Your task to perform on an android device: toggle airplane mode Image 0: 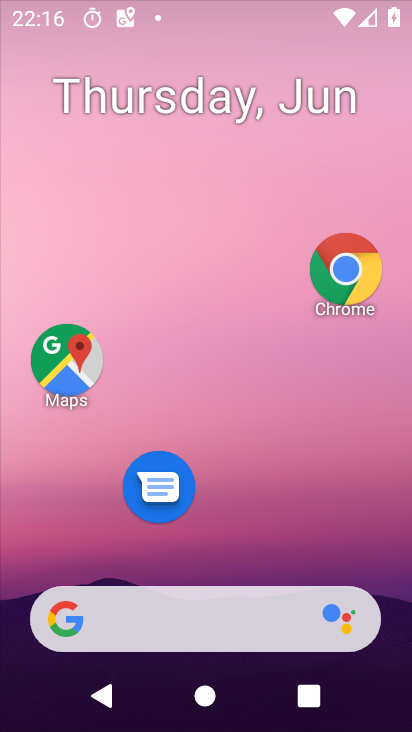
Step 0: drag from (228, 532) to (280, 255)
Your task to perform on an android device: toggle airplane mode Image 1: 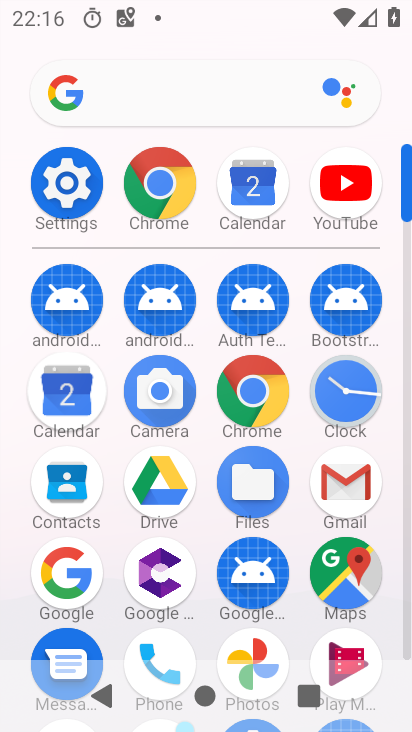
Step 1: click (72, 201)
Your task to perform on an android device: toggle airplane mode Image 2: 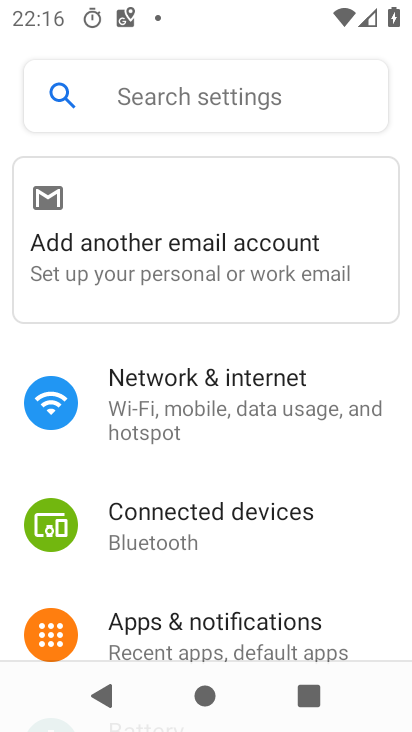
Step 2: click (228, 423)
Your task to perform on an android device: toggle airplane mode Image 3: 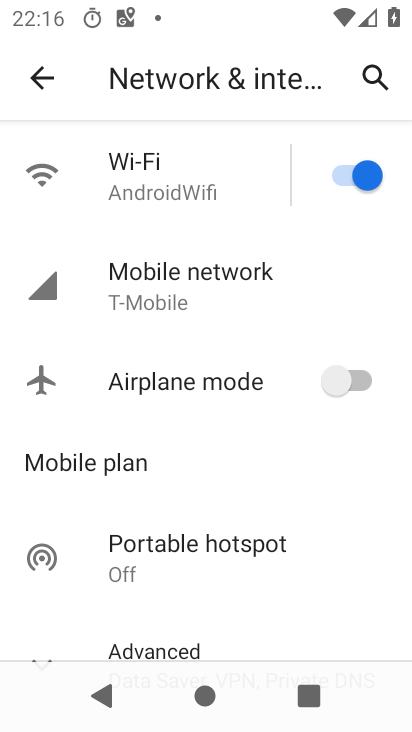
Step 3: click (216, 384)
Your task to perform on an android device: toggle airplane mode Image 4: 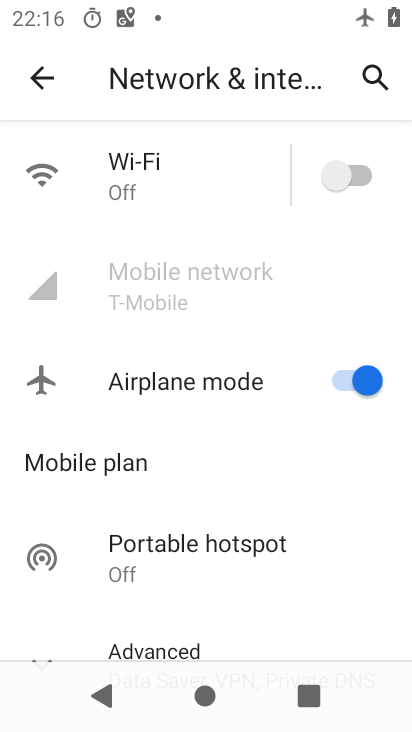
Step 4: task complete